Your task to perform on an android device: see sites visited before in the chrome app Image 0: 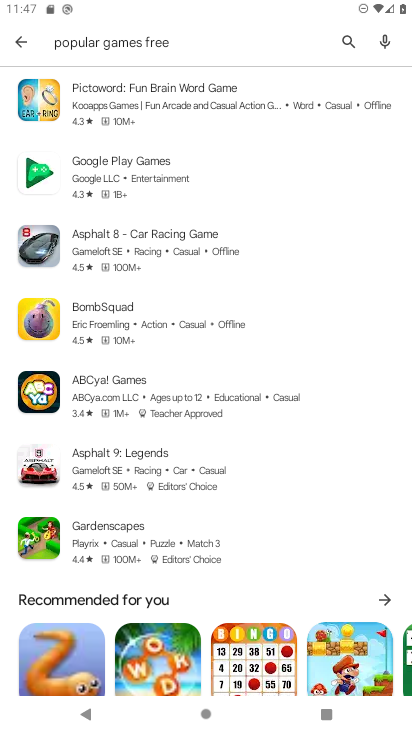
Step 0: press home button
Your task to perform on an android device: see sites visited before in the chrome app Image 1: 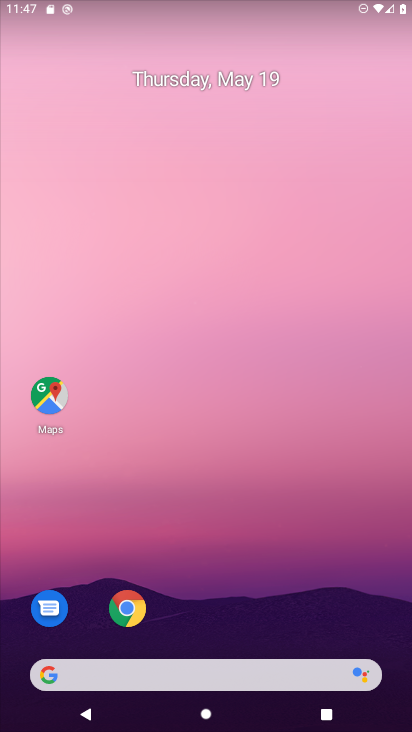
Step 1: click (130, 601)
Your task to perform on an android device: see sites visited before in the chrome app Image 2: 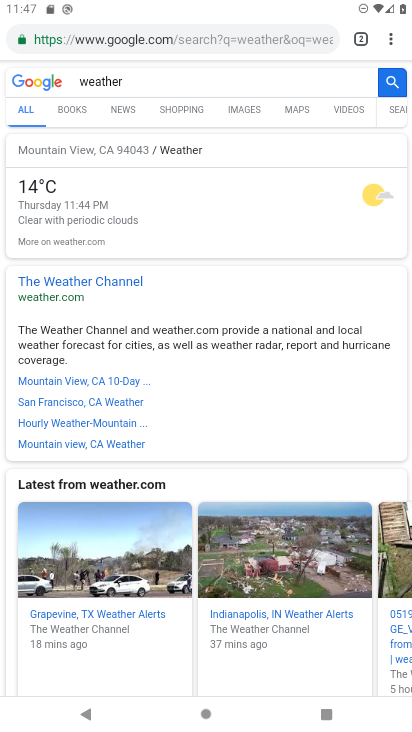
Step 2: task complete